Your task to perform on an android device: Go to Maps Image 0: 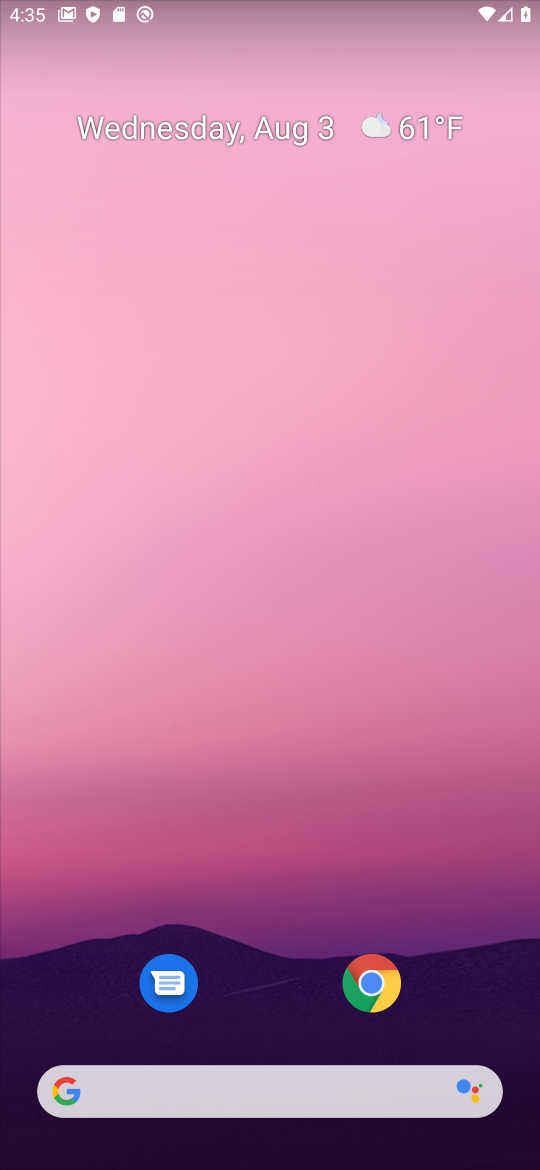
Step 0: drag from (261, 1048) to (280, 181)
Your task to perform on an android device: Go to Maps Image 1: 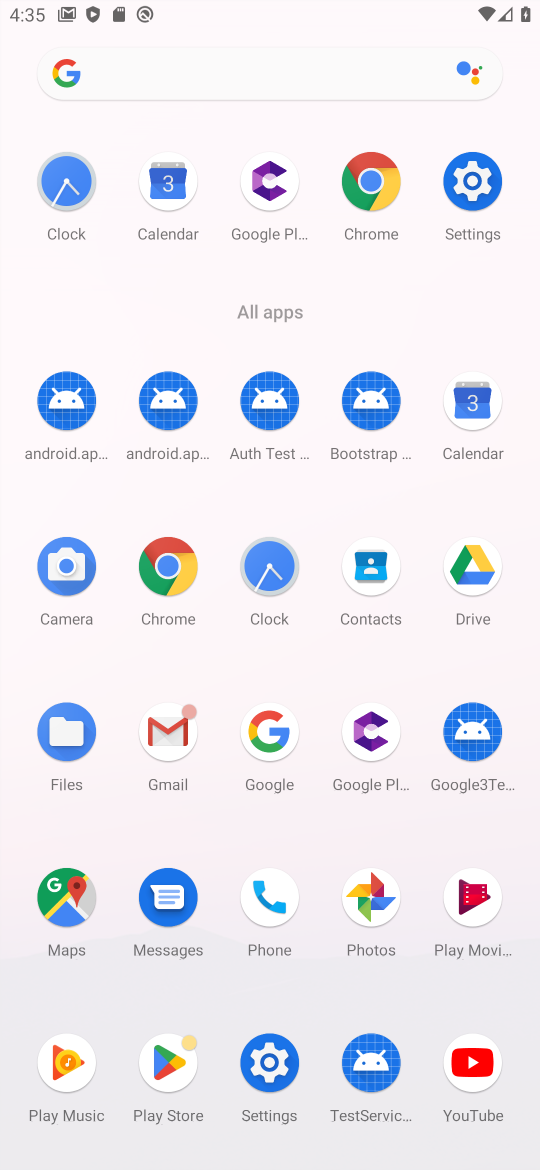
Step 1: click (66, 906)
Your task to perform on an android device: Go to Maps Image 2: 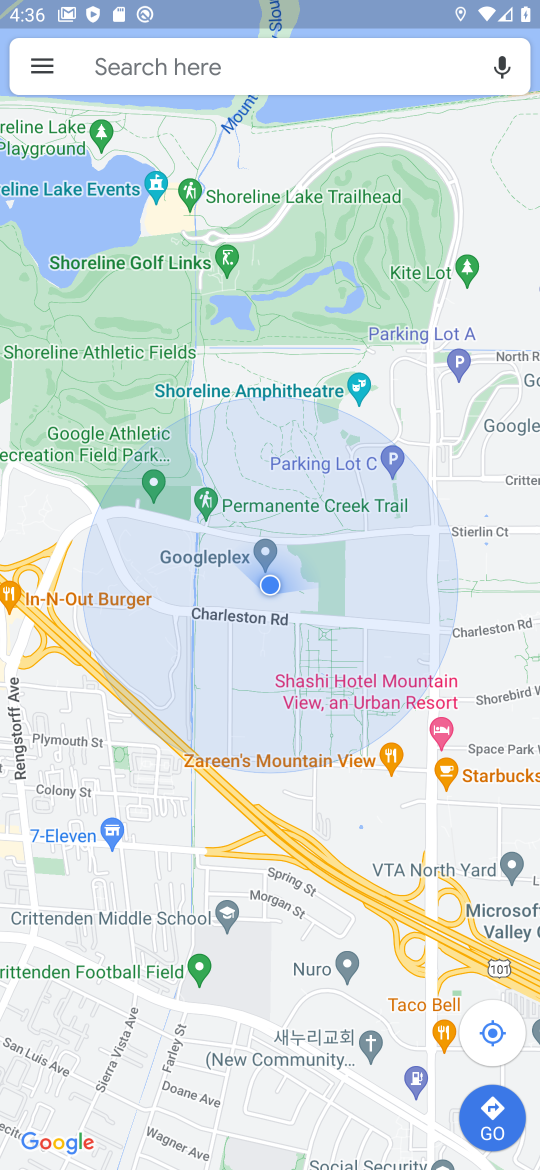
Step 2: task complete